Your task to perform on an android device: Turn off the flashlight Image 0: 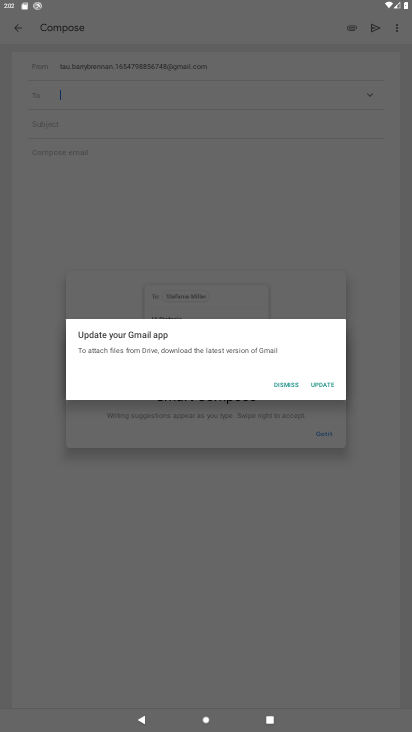
Step 0: press home button
Your task to perform on an android device: Turn off the flashlight Image 1: 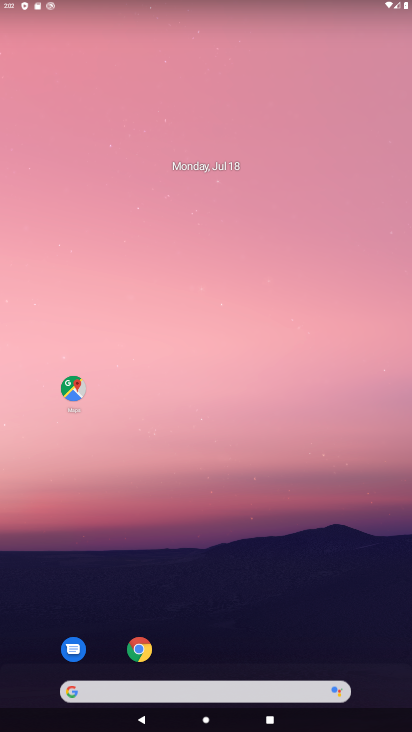
Step 1: drag from (194, 400) to (307, 14)
Your task to perform on an android device: Turn off the flashlight Image 2: 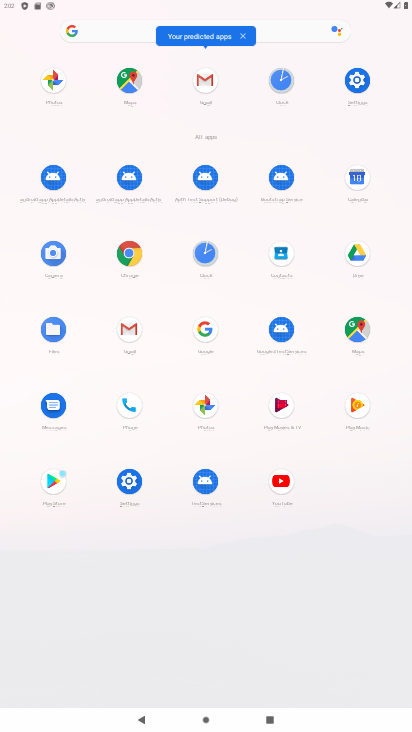
Step 2: click (355, 94)
Your task to perform on an android device: Turn off the flashlight Image 3: 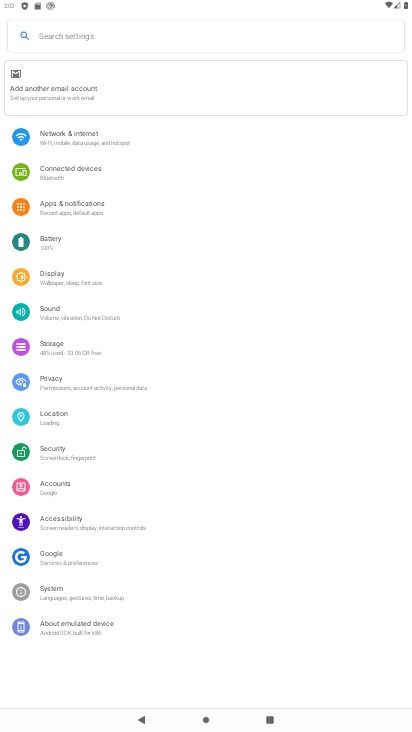
Step 3: click (162, 39)
Your task to perform on an android device: Turn off the flashlight Image 4: 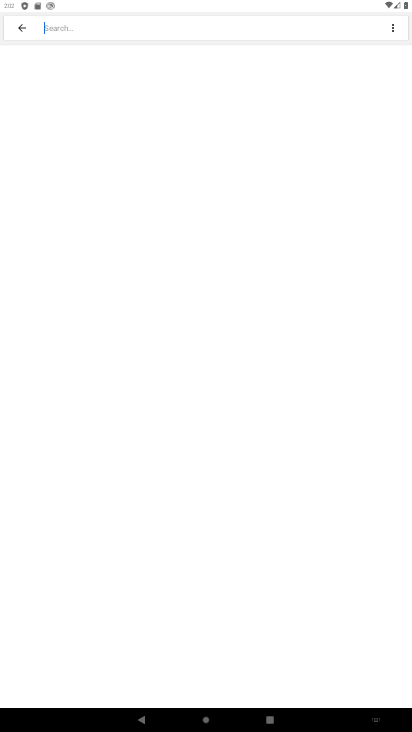
Step 4: type "flashlight"
Your task to perform on an android device: Turn off the flashlight Image 5: 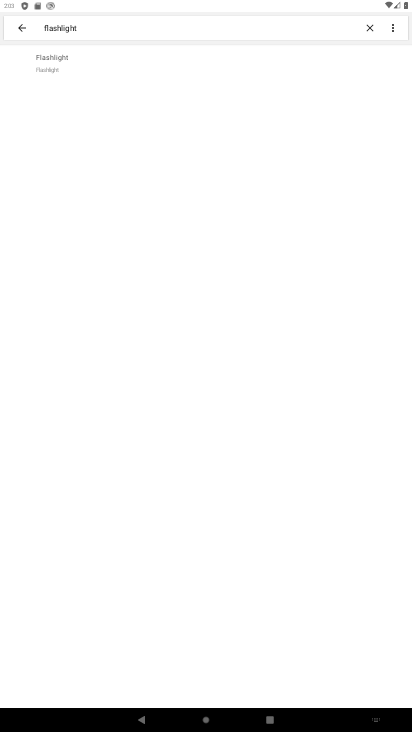
Step 5: task complete